Your task to perform on an android device: toggle javascript in the chrome app Image 0: 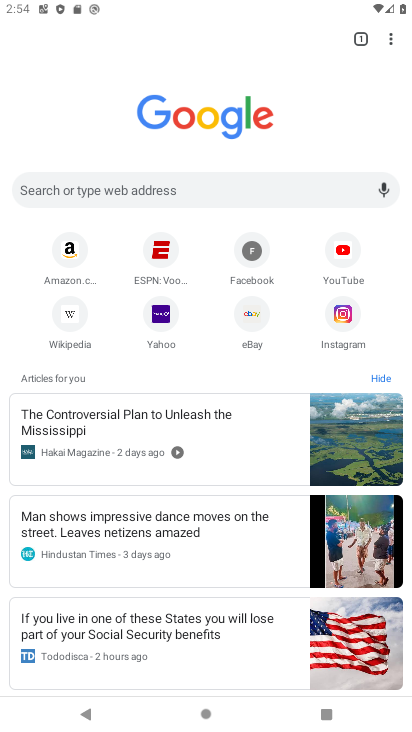
Step 0: press home button
Your task to perform on an android device: toggle javascript in the chrome app Image 1: 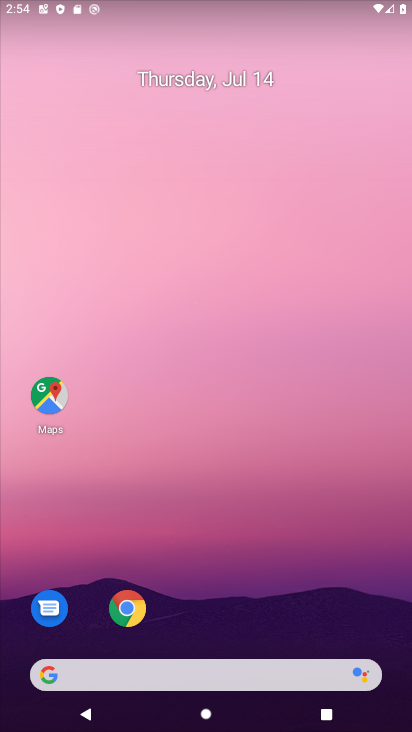
Step 1: click (121, 616)
Your task to perform on an android device: toggle javascript in the chrome app Image 2: 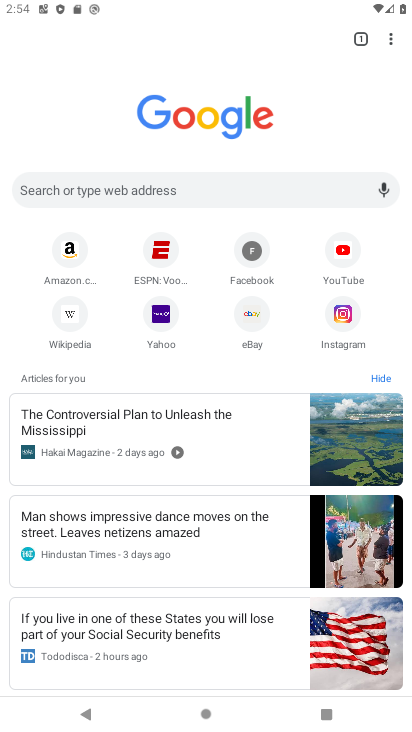
Step 2: click (393, 41)
Your task to perform on an android device: toggle javascript in the chrome app Image 3: 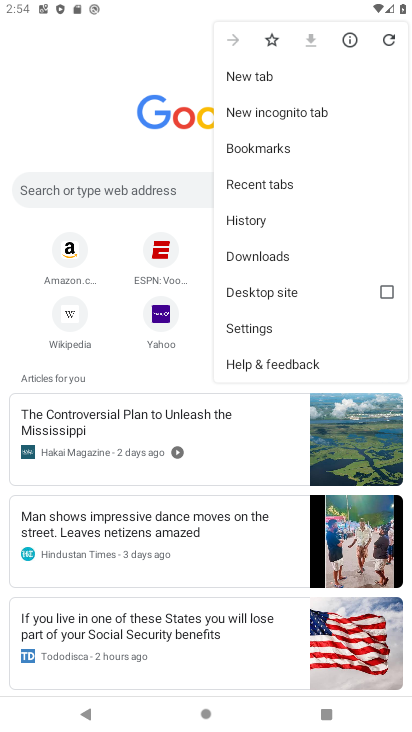
Step 3: click (246, 324)
Your task to perform on an android device: toggle javascript in the chrome app Image 4: 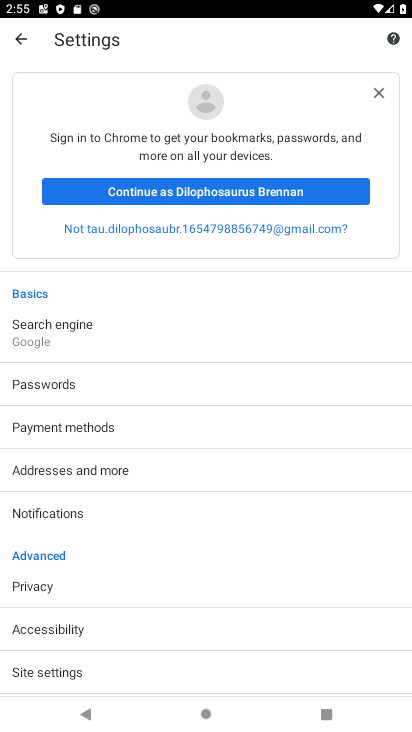
Step 4: click (48, 669)
Your task to perform on an android device: toggle javascript in the chrome app Image 5: 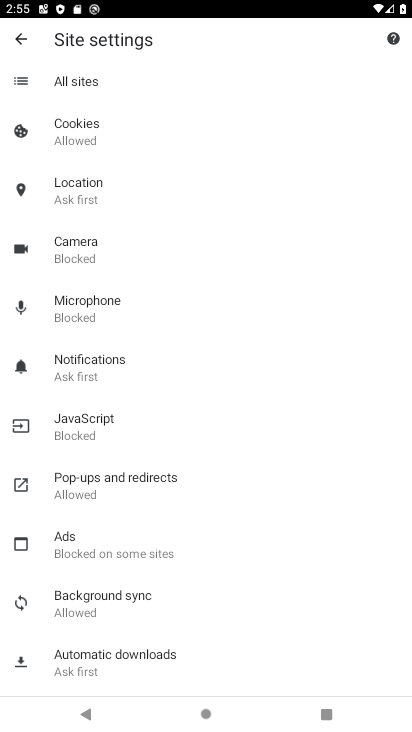
Step 5: click (44, 424)
Your task to perform on an android device: toggle javascript in the chrome app Image 6: 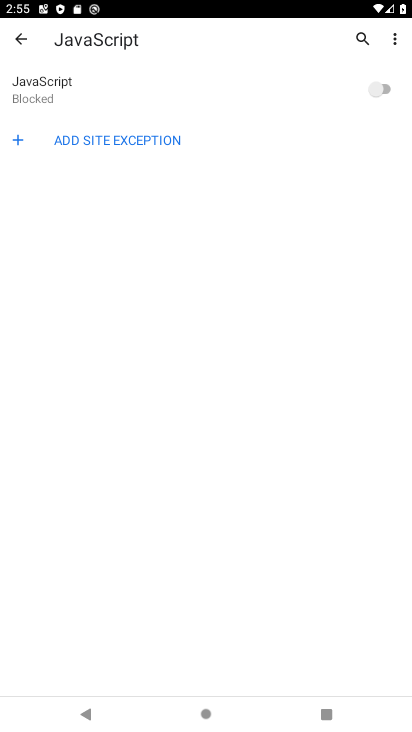
Step 6: task complete